Your task to perform on an android device: Open settings on Google Maps Image 0: 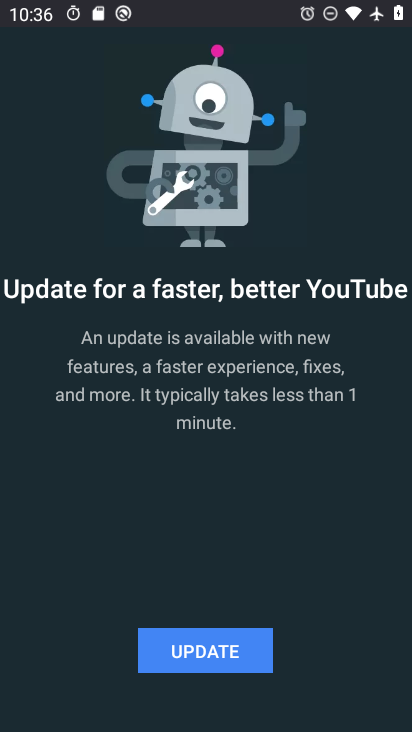
Step 0: press home button
Your task to perform on an android device: Open settings on Google Maps Image 1: 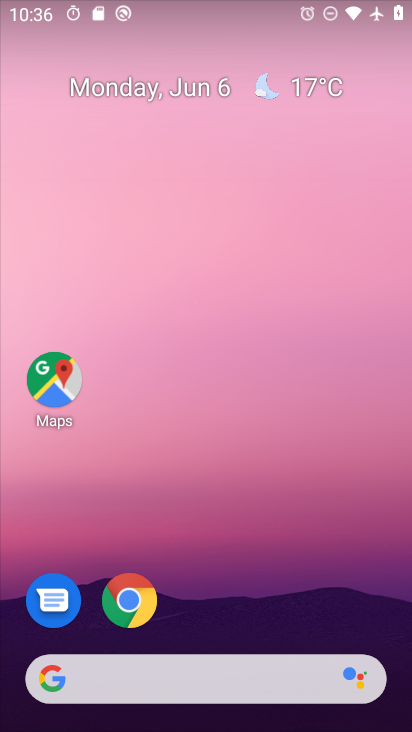
Step 1: click (49, 375)
Your task to perform on an android device: Open settings on Google Maps Image 2: 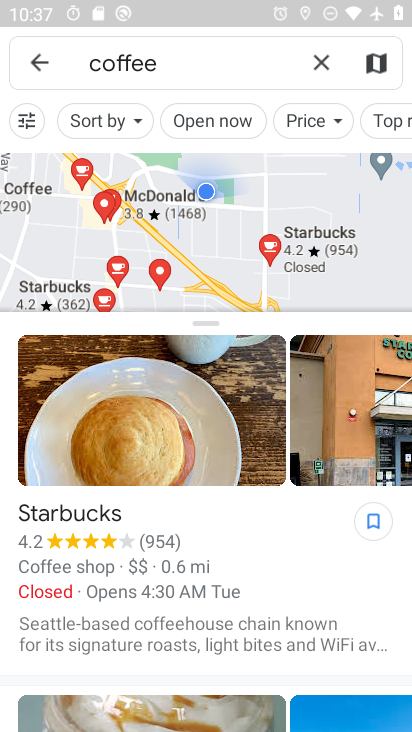
Step 2: click (318, 63)
Your task to perform on an android device: Open settings on Google Maps Image 3: 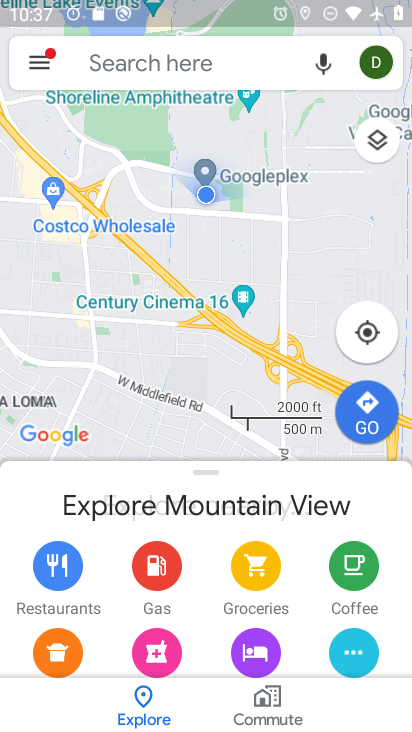
Step 3: click (45, 65)
Your task to perform on an android device: Open settings on Google Maps Image 4: 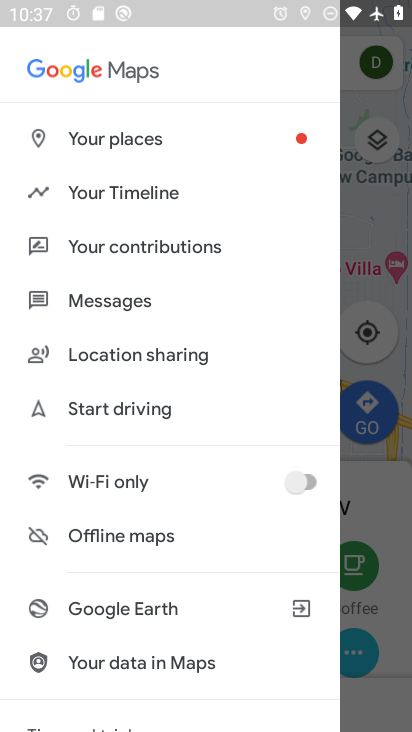
Step 4: drag from (211, 619) to (227, 65)
Your task to perform on an android device: Open settings on Google Maps Image 5: 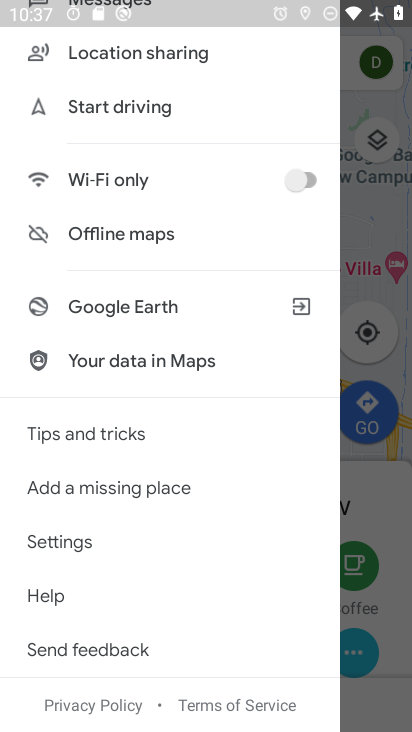
Step 5: click (103, 544)
Your task to perform on an android device: Open settings on Google Maps Image 6: 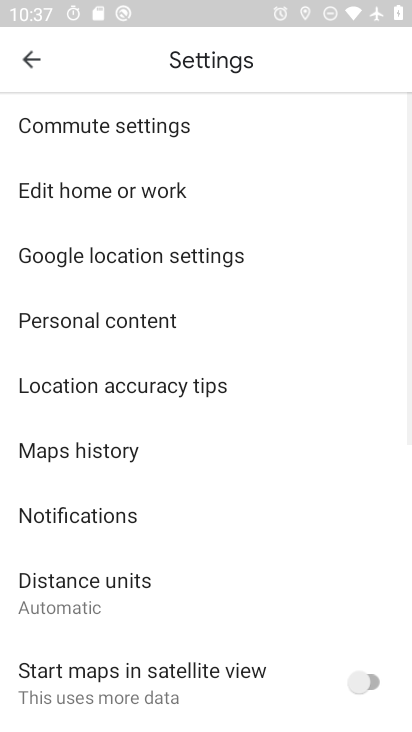
Step 6: task complete